Your task to perform on an android device: Play the last video I watched on Youtube Image 0: 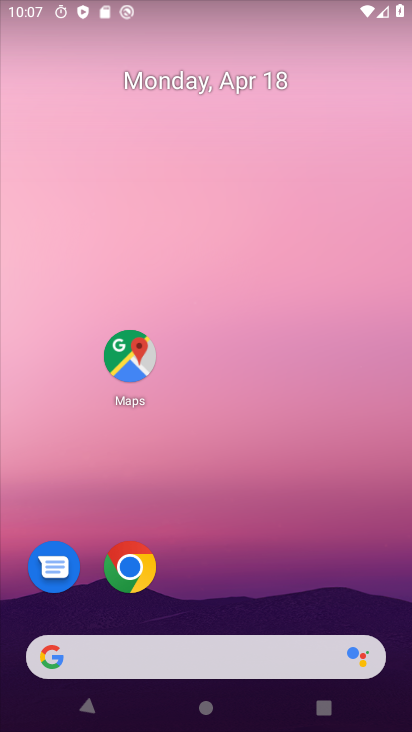
Step 0: drag from (291, 656) to (365, 196)
Your task to perform on an android device: Play the last video I watched on Youtube Image 1: 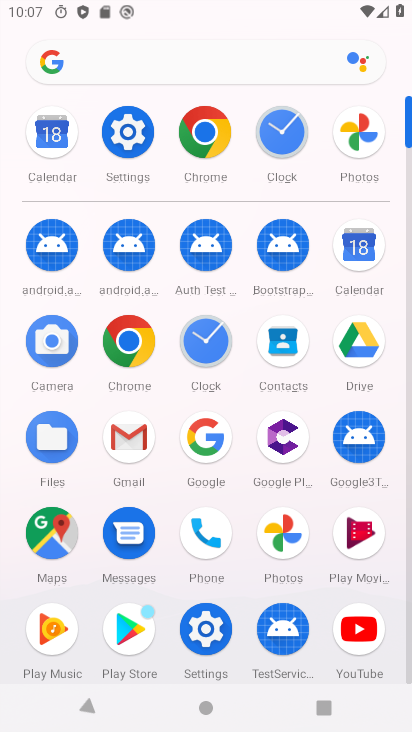
Step 1: click (340, 627)
Your task to perform on an android device: Play the last video I watched on Youtube Image 2: 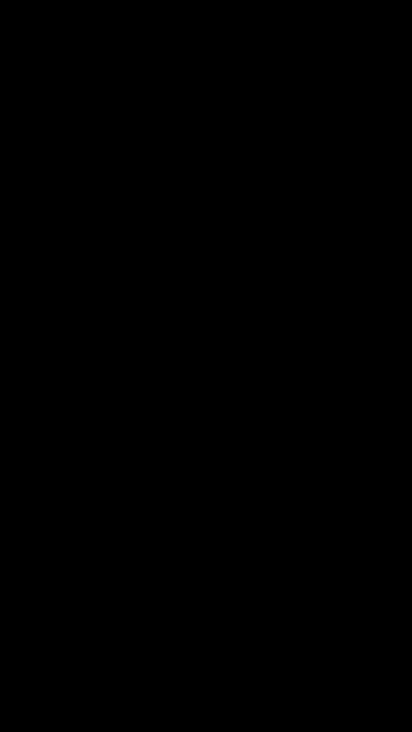
Step 2: press back button
Your task to perform on an android device: Play the last video I watched on Youtube Image 3: 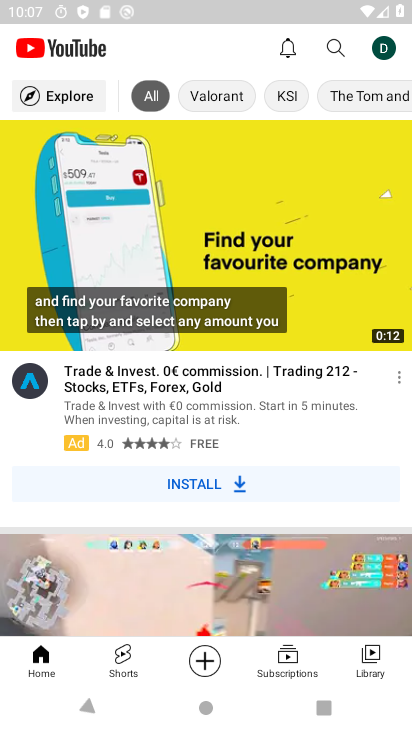
Step 3: click (372, 656)
Your task to perform on an android device: Play the last video I watched on Youtube Image 4: 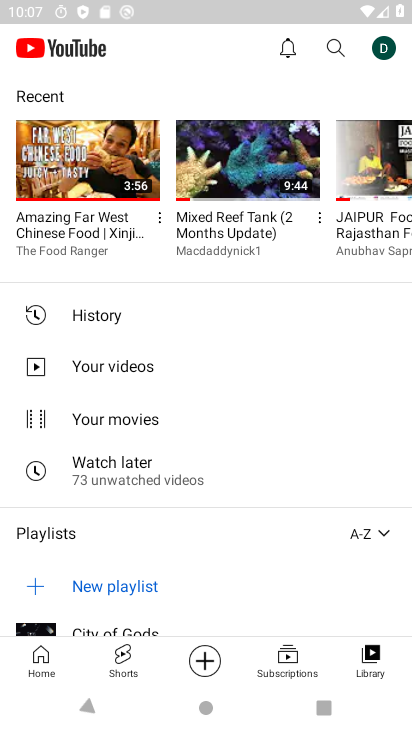
Step 4: click (117, 178)
Your task to perform on an android device: Play the last video I watched on Youtube Image 5: 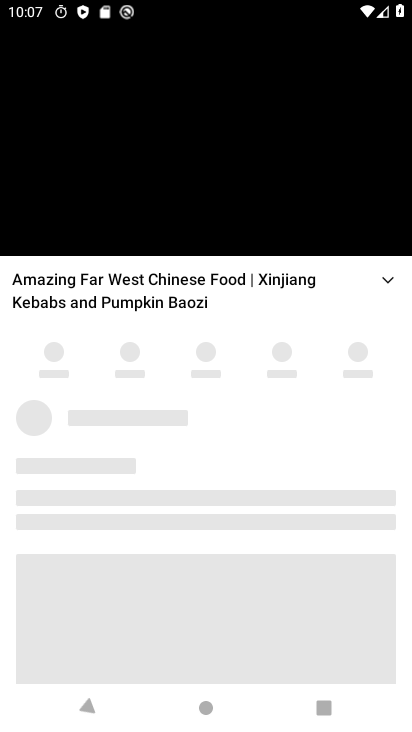
Step 5: task complete